Your task to perform on an android device: install app "McDonald's" Image 0: 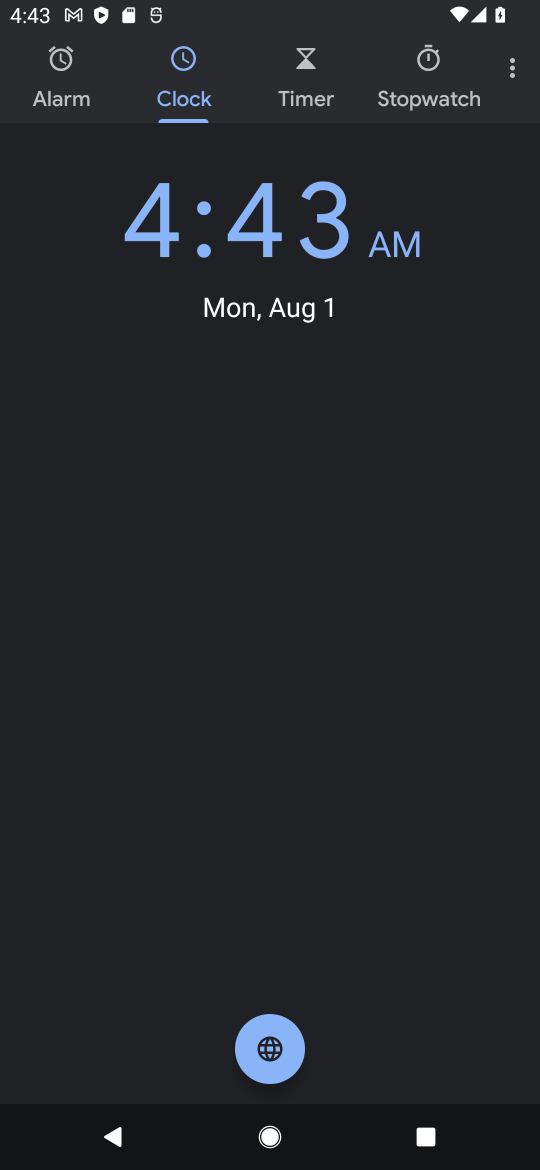
Step 0: press home button
Your task to perform on an android device: install app "McDonald's" Image 1: 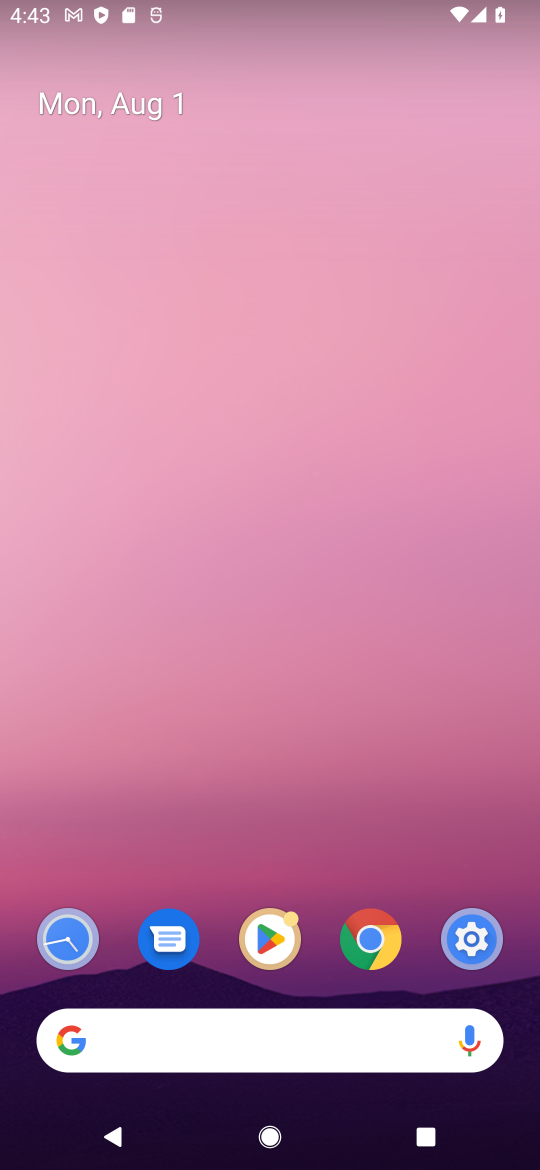
Step 1: click (261, 932)
Your task to perform on an android device: install app "McDonald's" Image 2: 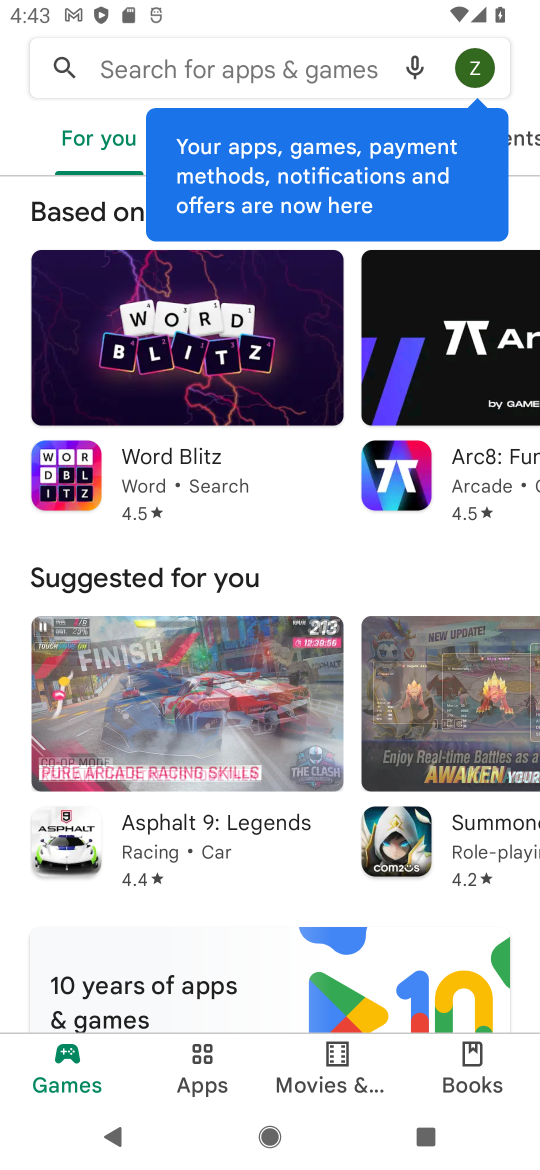
Step 2: click (179, 63)
Your task to perform on an android device: install app "McDonald's" Image 3: 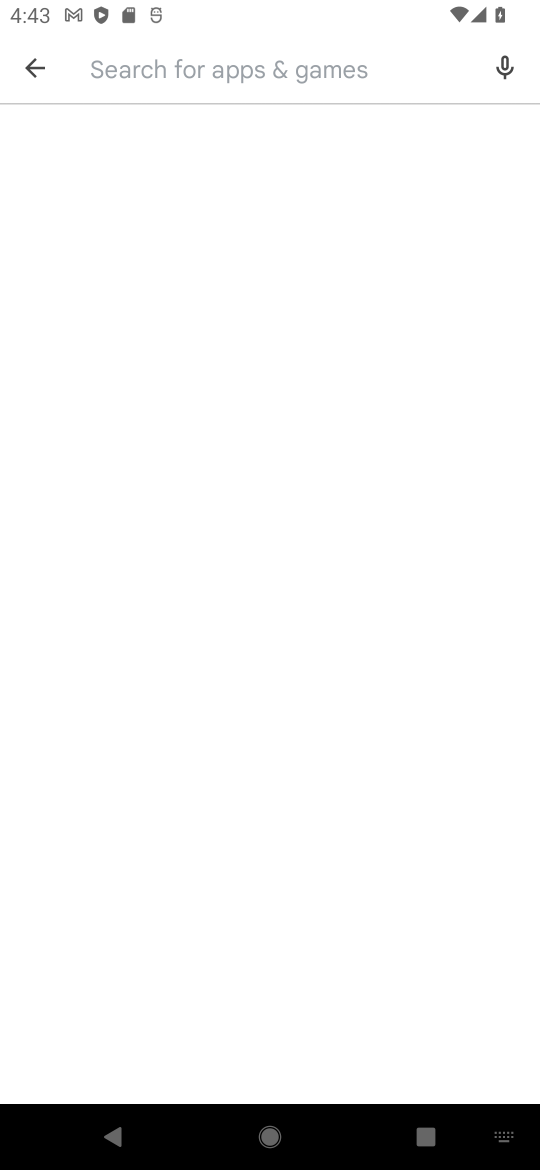
Step 3: type "McDonald"
Your task to perform on an android device: install app "McDonald's" Image 4: 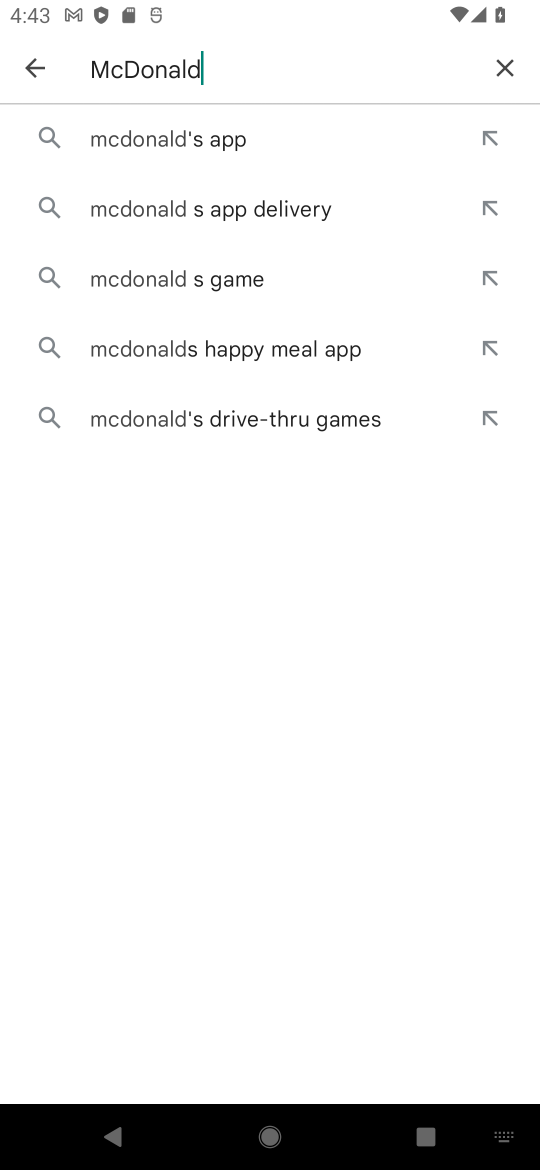
Step 4: click (118, 118)
Your task to perform on an android device: install app "McDonald's" Image 5: 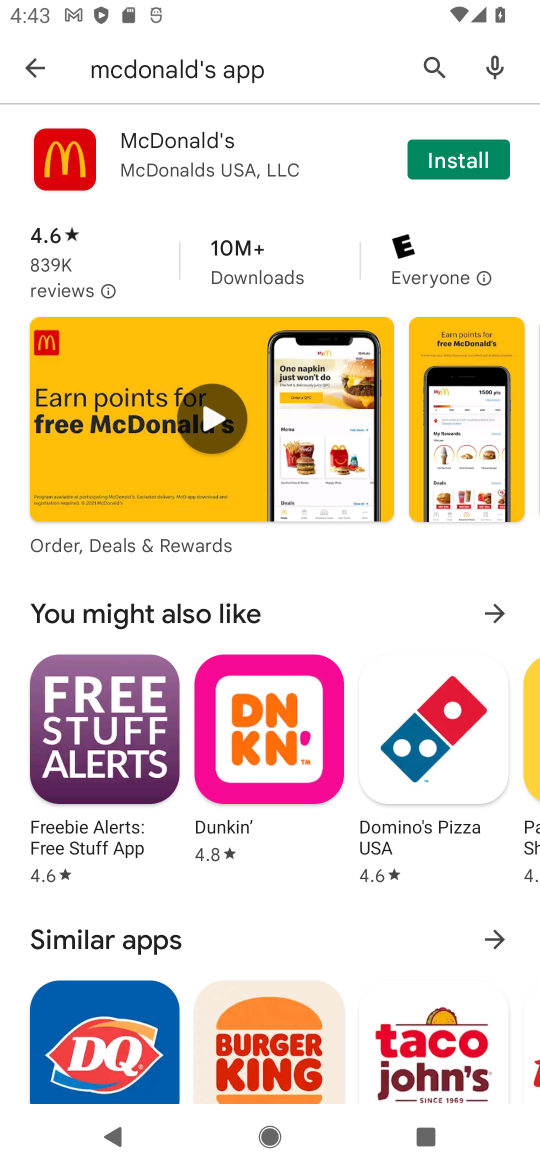
Step 5: click (482, 165)
Your task to perform on an android device: install app "McDonald's" Image 6: 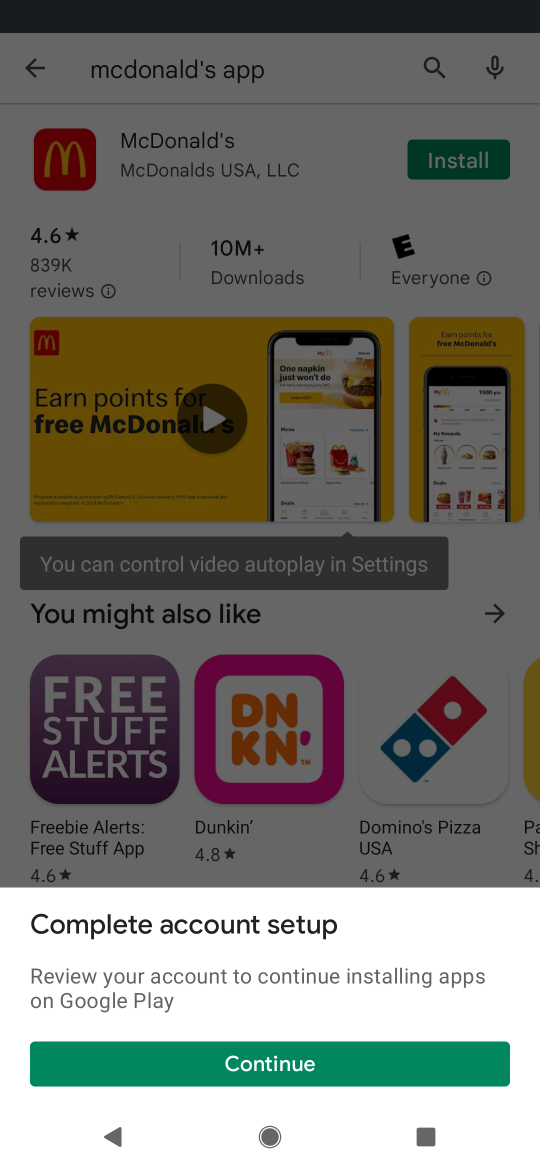
Step 6: click (184, 1067)
Your task to perform on an android device: install app "McDonald's" Image 7: 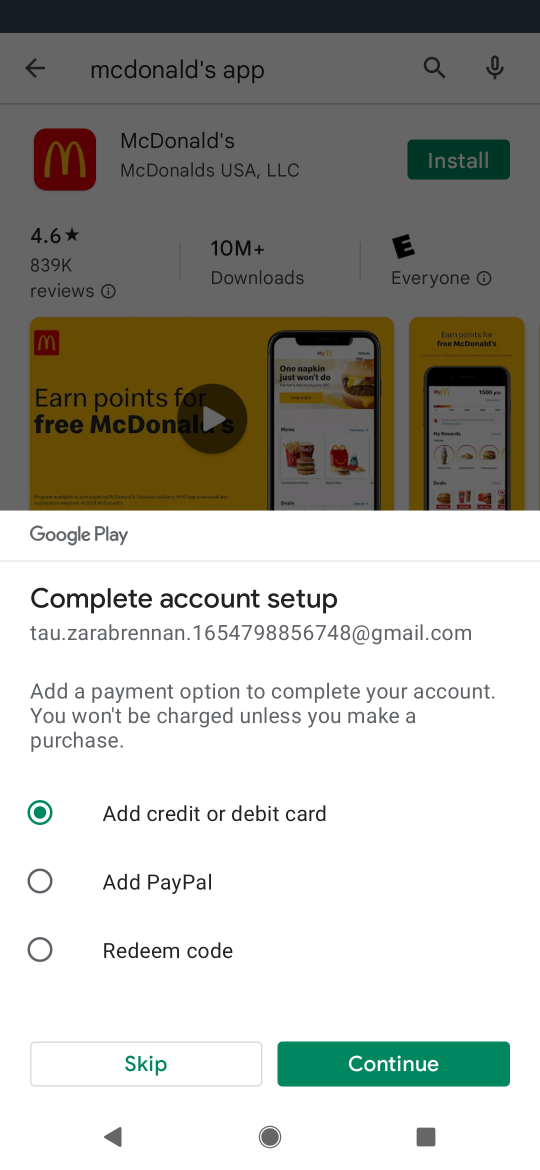
Step 7: click (149, 1059)
Your task to perform on an android device: install app "McDonald's" Image 8: 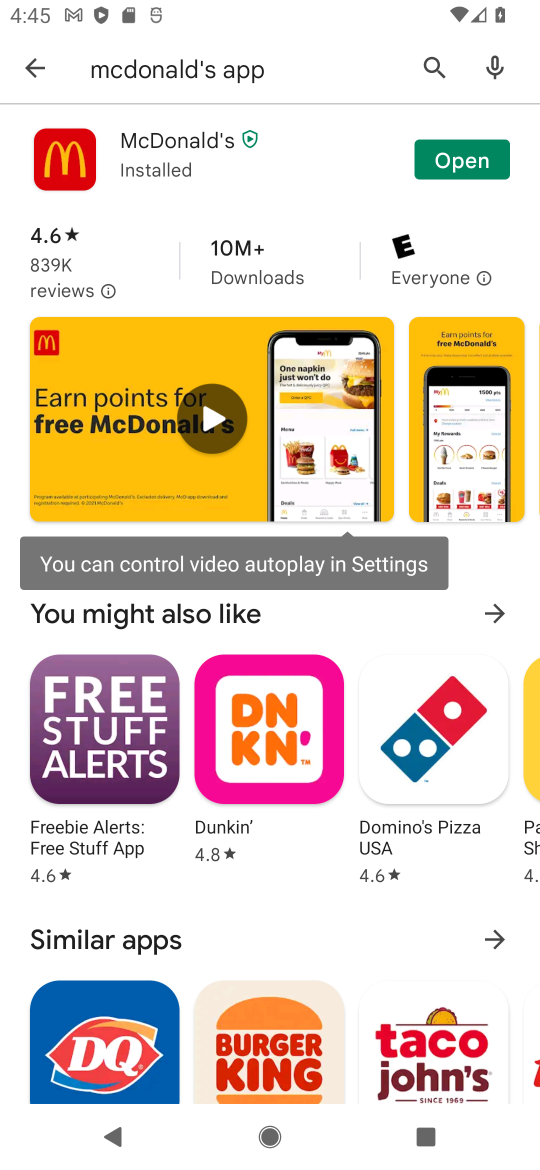
Step 8: task complete